Your task to perform on an android device: turn on sleep mode Image 0: 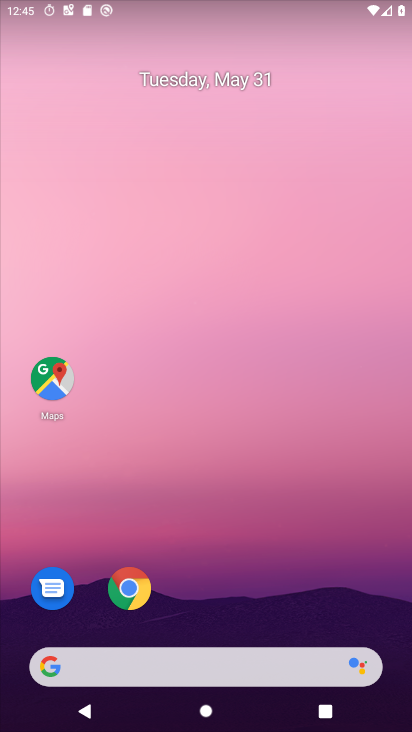
Step 0: drag from (270, 662) to (248, 125)
Your task to perform on an android device: turn on sleep mode Image 1: 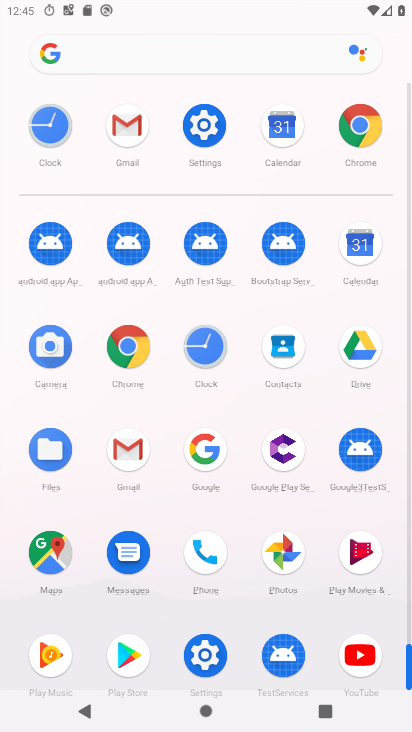
Step 1: click (216, 146)
Your task to perform on an android device: turn on sleep mode Image 2: 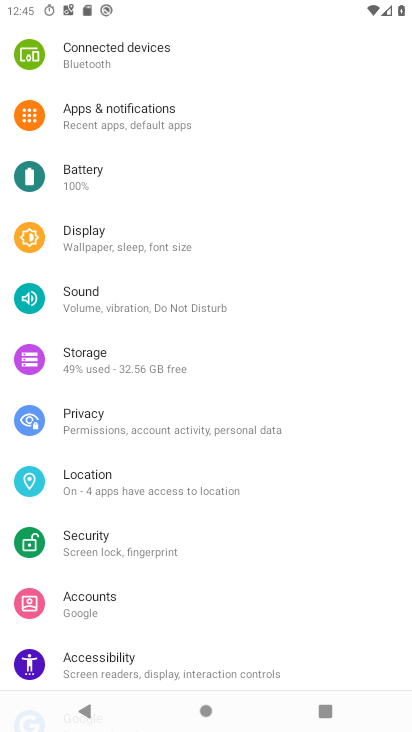
Step 2: drag from (225, 228) to (211, 595)
Your task to perform on an android device: turn on sleep mode Image 3: 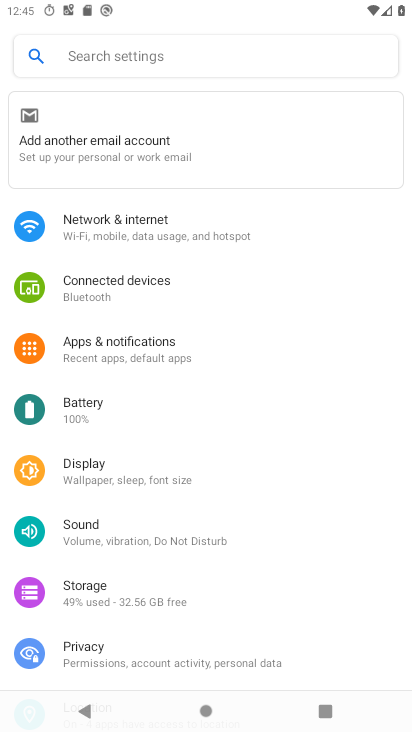
Step 3: click (122, 477)
Your task to perform on an android device: turn on sleep mode Image 4: 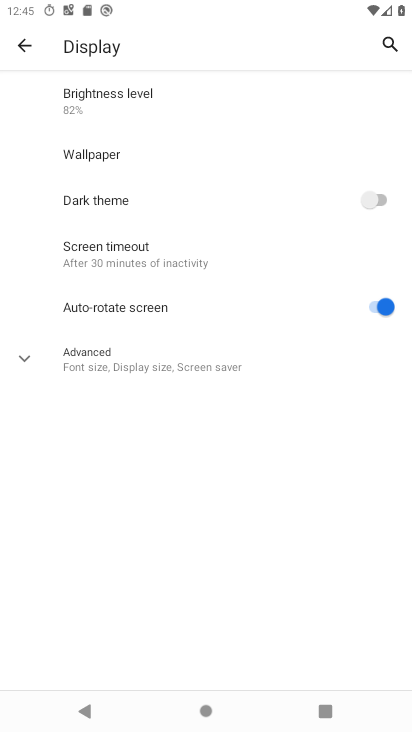
Step 4: task complete